Your task to perform on an android device: turn notification dots off Image 0: 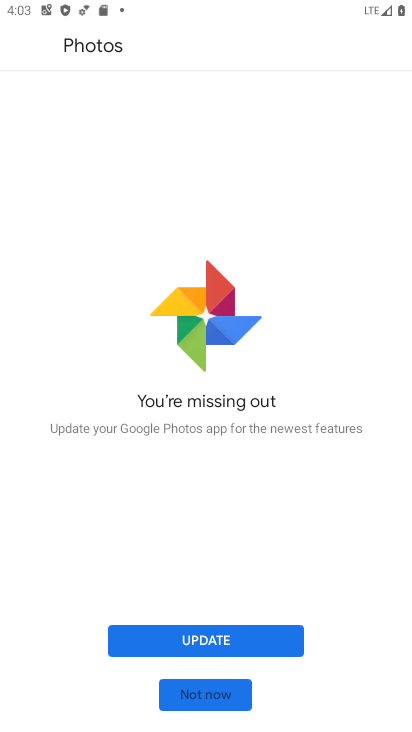
Step 0: press home button
Your task to perform on an android device: turn notification dots off Image 1: 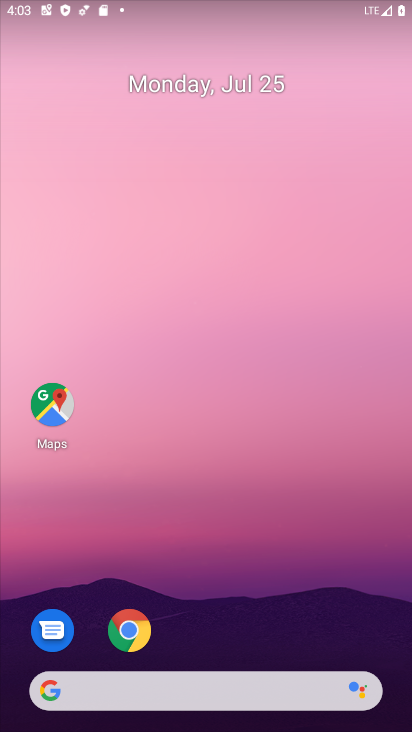
Step 1: drag from (196, 627) to (140, 48)
Your task to perform on an android device: turn notification dots off Image 2: 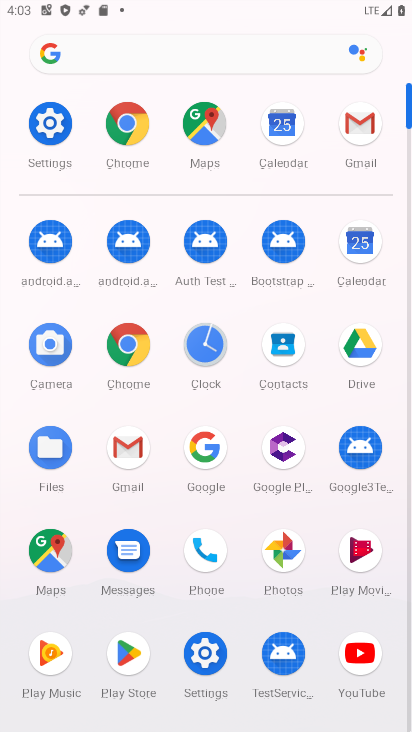
Step 2: click (44, 131)
Your task to perform on an android device: turn notification dots off Image 3: 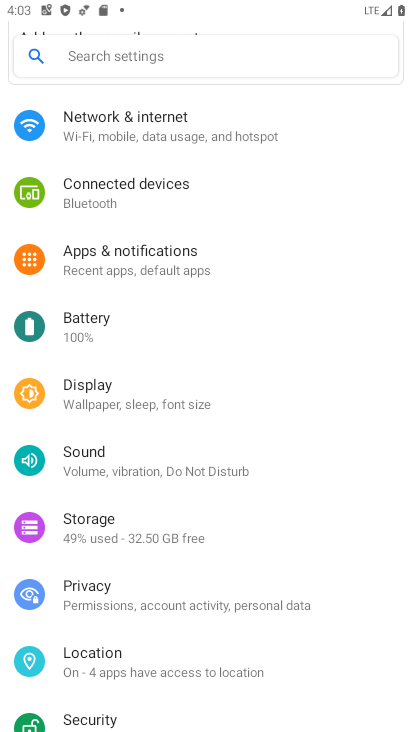
Step 3: click (210, 268)
Your task to perform on an android device: turn notification dots off Image 4: 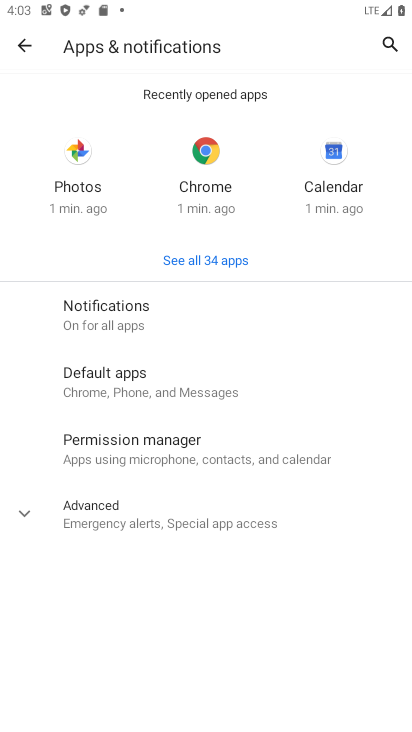
Step 4: click (243, 325)
Your task to perform on an android device: turn notification dots off Image 5: 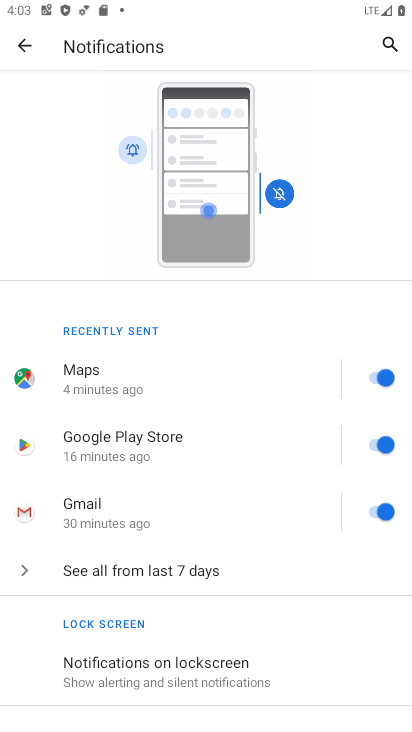
Step 5: drag from (273, 700) to (232, 359)
Your task to perform on an android device: turn notification dots off Image 6: 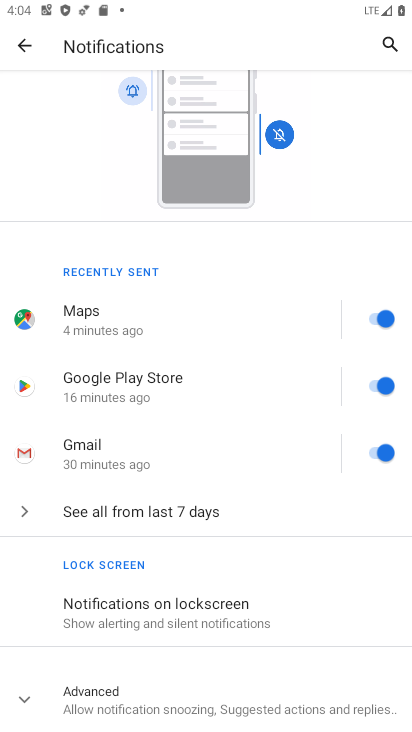
Step 6: click (259, 690)
Your task to perform on an android device: turn notification dots off Image 7: 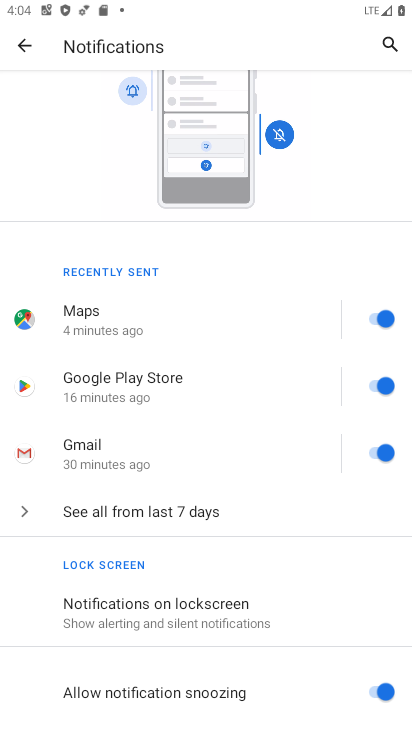
Step 7: task complete